Your task to perform on an android device: change alarm snooze length Image 0: 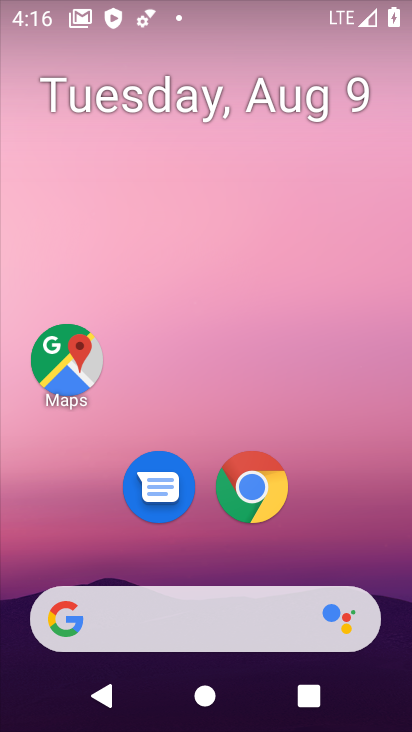
Step 0: drag from (190, 526) to (97, 9)
Your task to perform on an android device: change alarm snooze length Image 1: 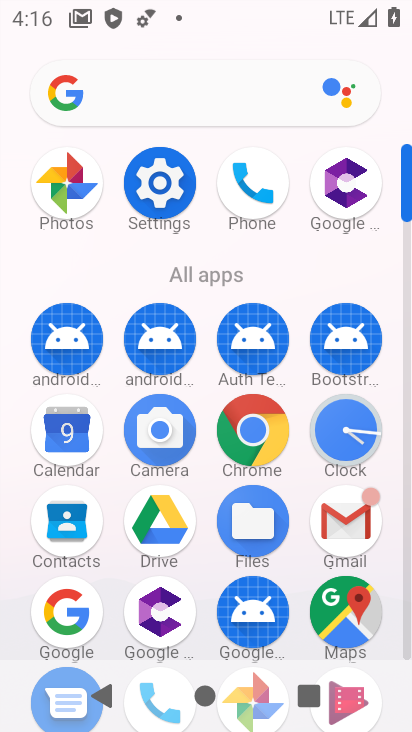
Step 1: click (338, 447)
Your task to perform on an android device: change alarm snooze length Image 2: 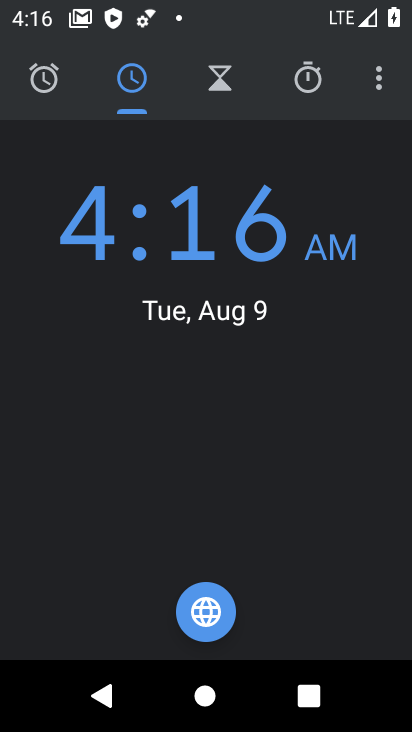
Step 2: click (375, 79)
Your task to perform on an android device: change alarm snooze length Image 3: 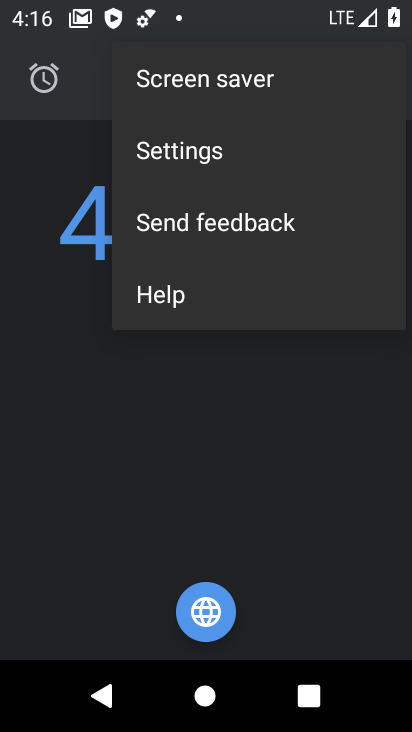
Step 3: click (221, 145)
Your task to perform on an android device: change alarm snooze length Image 4: 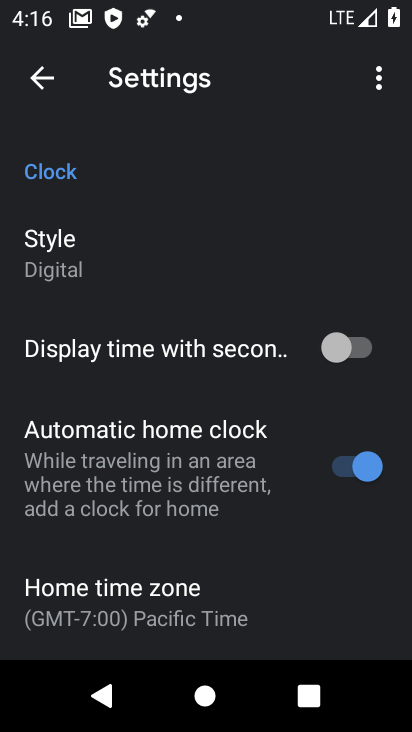
Step 4: drag from (221, 508) to (150, 93)
Your task to perform on an android device: change alarm snooze length Image 5: 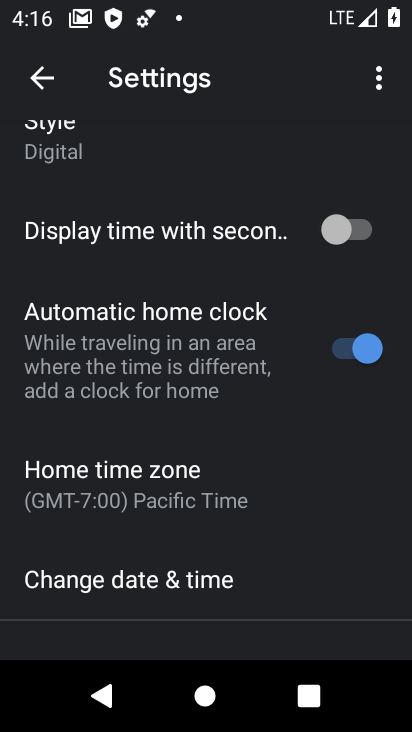
Step 5: drag from (194, 489) to (150, 48)
Your task to perform on an android device: change alarm snooze length Image 6: 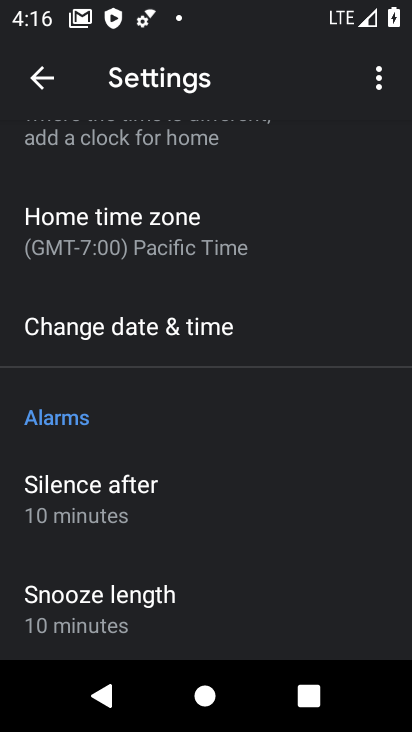
Step 6: click (136, 598)
Your task to perform on an android device: change alarm snooze length Image 7: 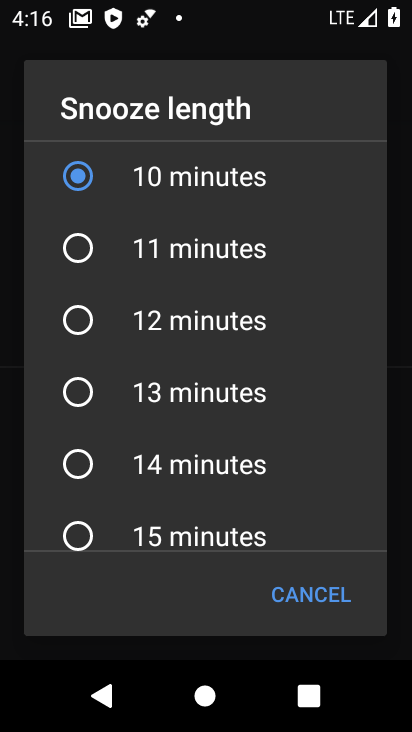
Step 7: click (78, 540)
Your task to perform on an android device: change alarm snooze length Image 8: 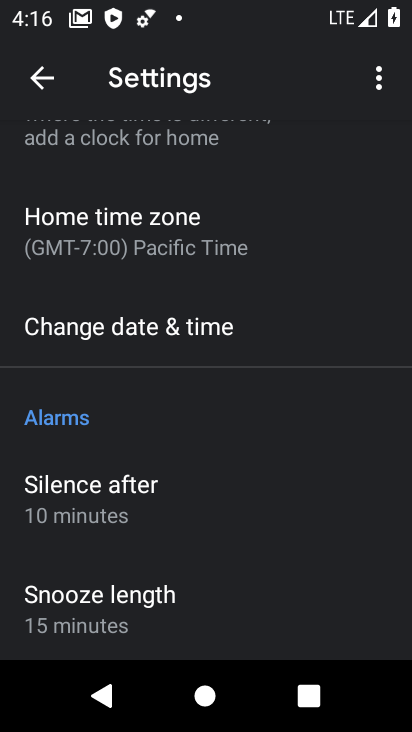
Step 8: task complete